Your task to perform on an android device: change notification settings in the gmail app Image 0: 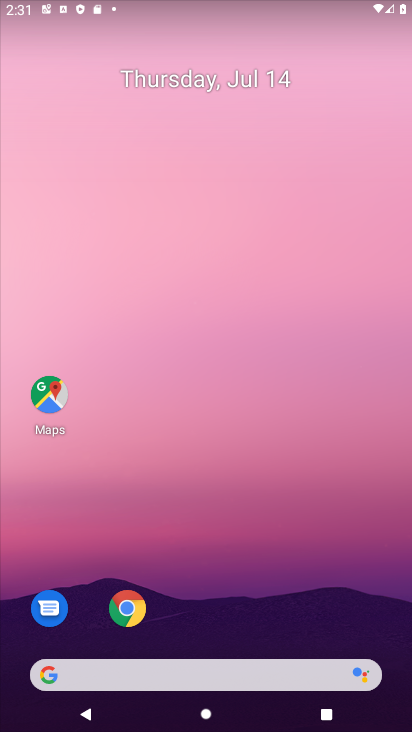
Step 0: drag from (382, 615) to (293, 25)
Your task to perform on an android device: change notification settings in the gmail app Image 1: 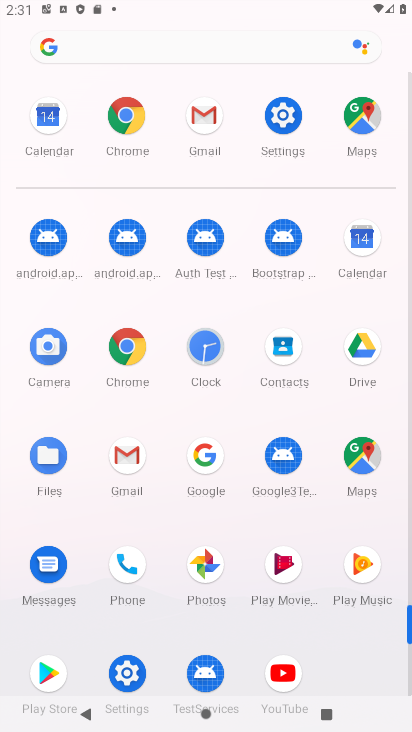
Step 1: click (125, 454)
Your task to perform on an android device: change notification settings in the gmail app Image 2: 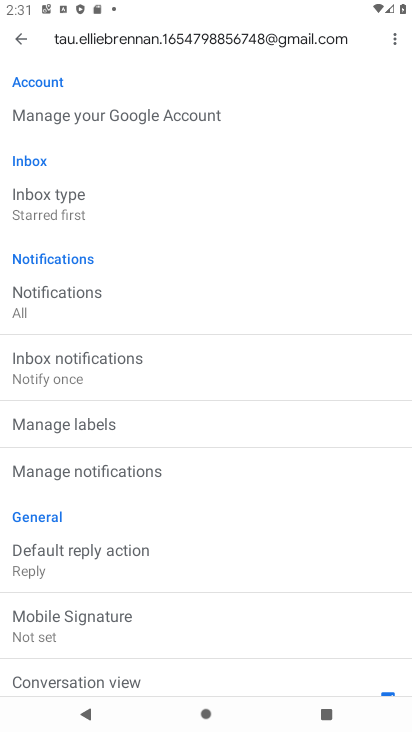
Step 2: click (75, 474)
Your task to perform on an android device: change notification settings in the gmail app Image 3: 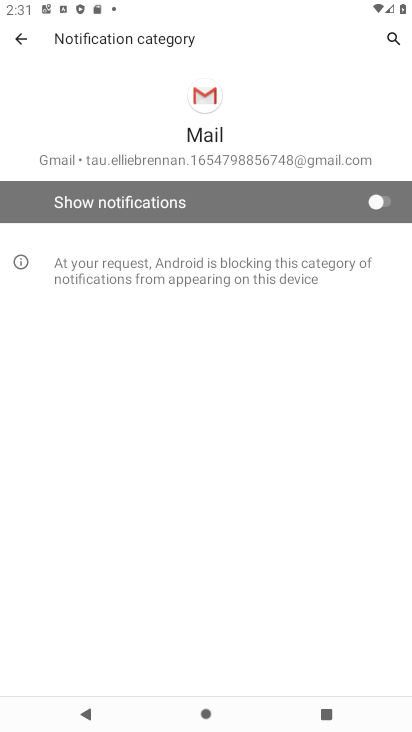
Step 3: click (382, 204)
Your task to perform on an android device: change notification settings in the gmail app Image 4: 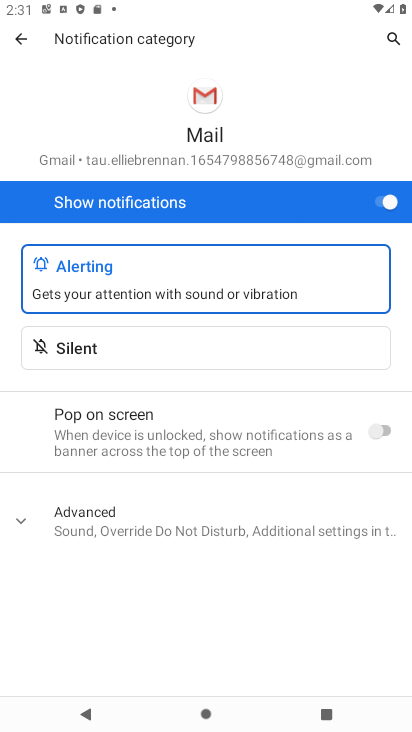
Step 4: task complete